Your task to perform on an android device: check out phone information Image 0: 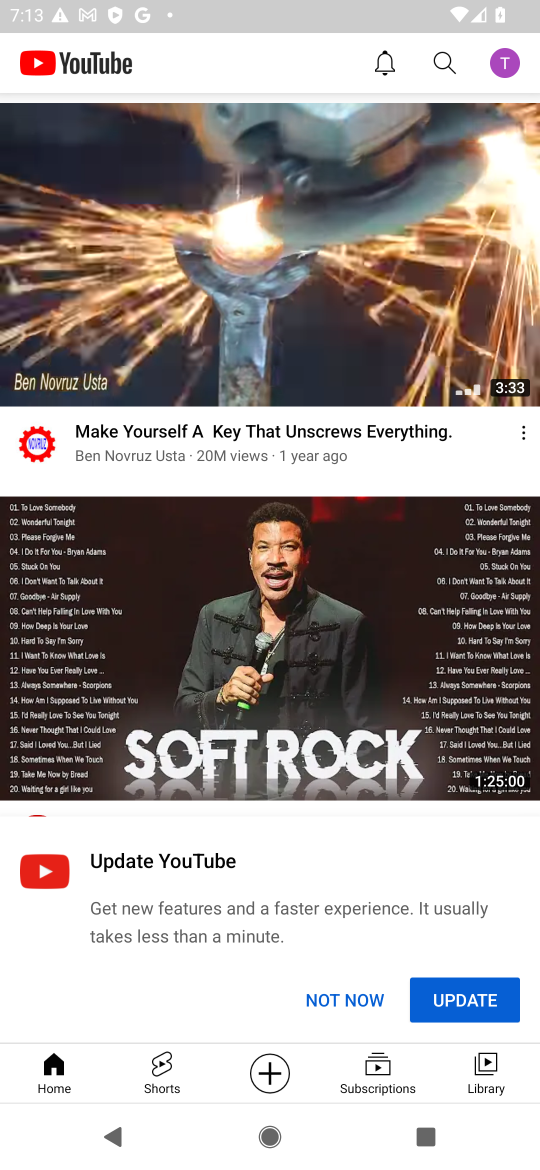
Step 0: press home button
Your task to perform on an android device: check out phone information Image 1: 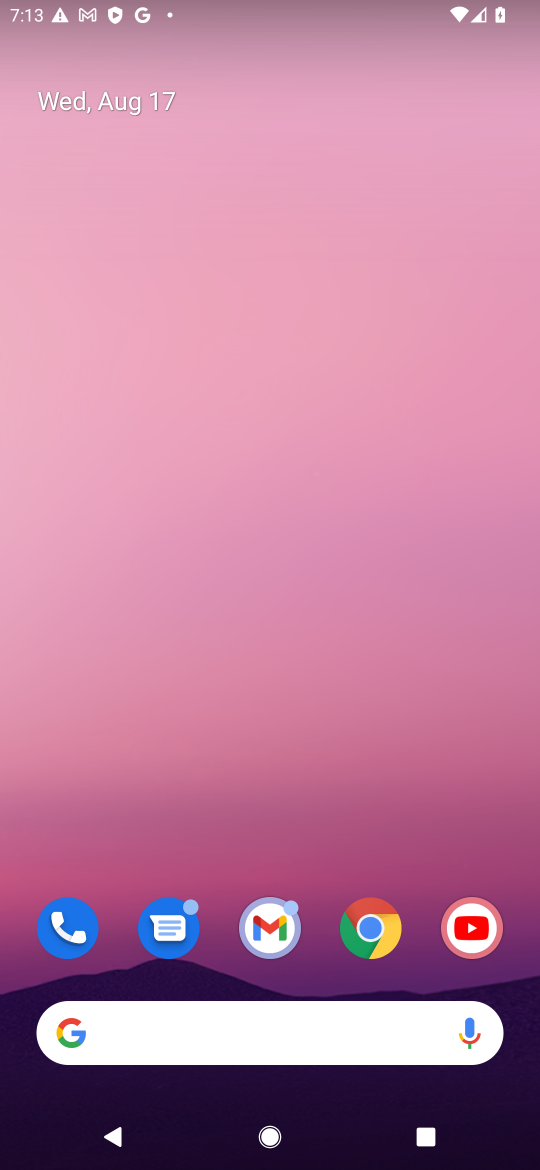
Step 1: drag from (349, 1023) to (310, 8)
Your task to perform on an android device: check out phone information Image 2: 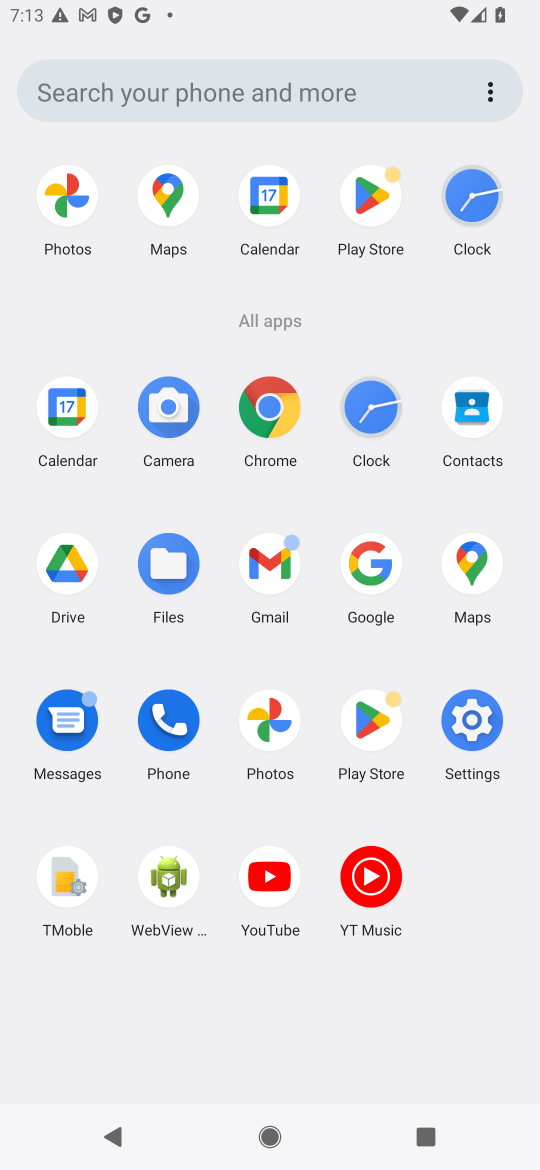
Step 2: click (475, 729)
Your task to perform on an android device: check out phone information Image 3: 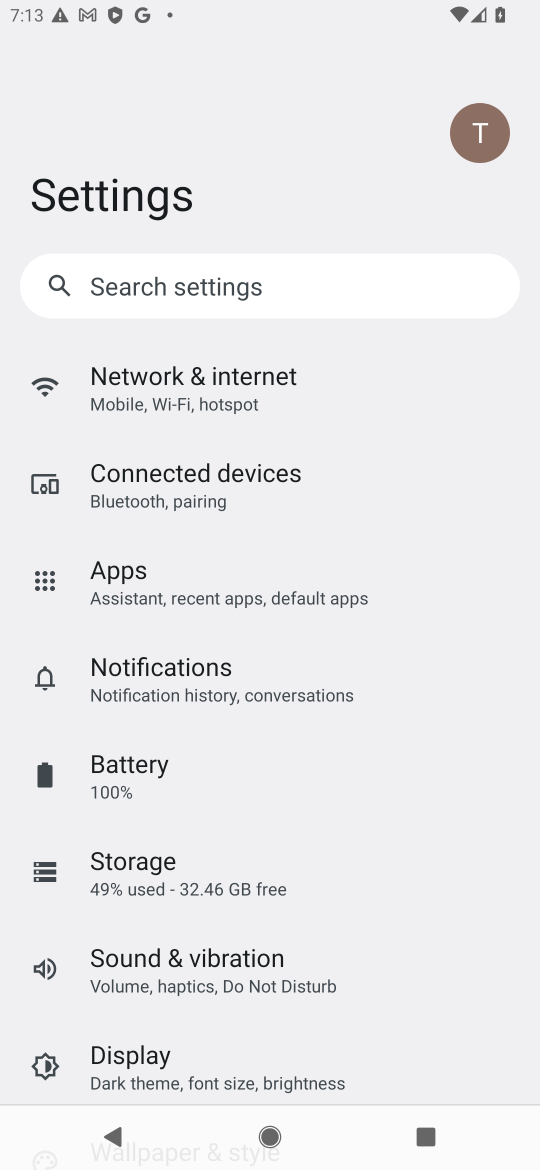
Step 3: drag from (337, 930) to (317, 213)
Your task to perform on an android device: check out phone information Image 4: 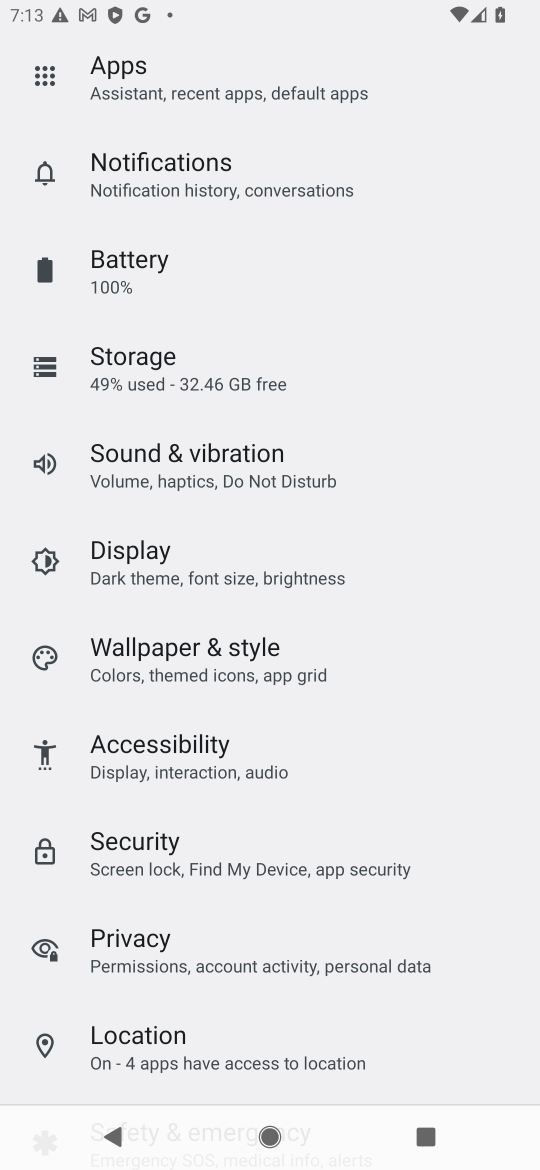
Step 4: drag from (189, 928) to (246, 85)
Your task to perform on an android device: check out phone information Image 5: 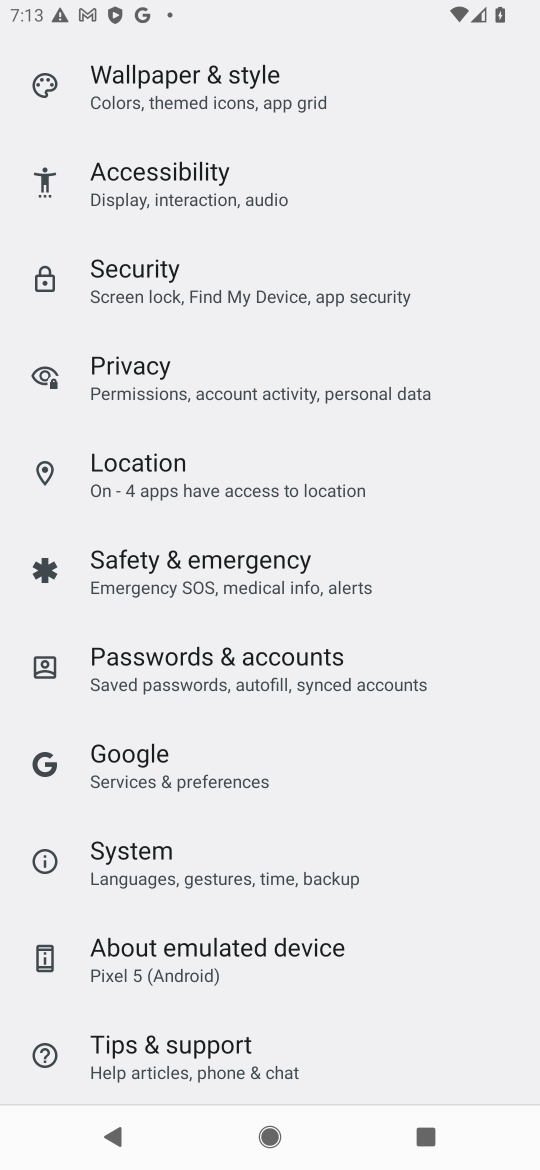
Step 5: drag from (243, 1104) to (327, 145)
Your task to perform on an android device: check out phone information Image 6: 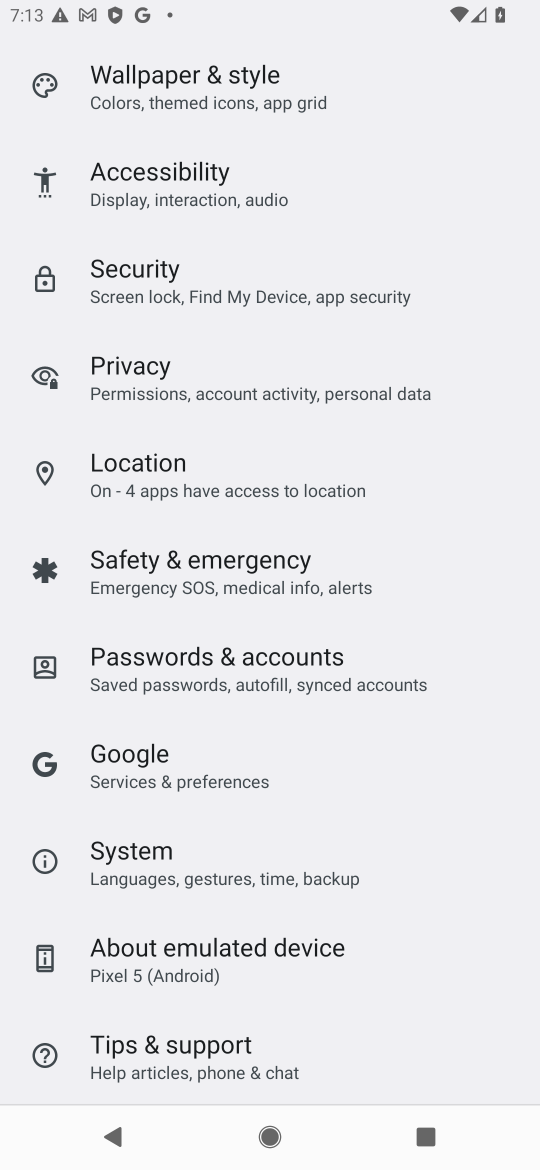
Step 6: click (269, 964)
Your task to perform on an android device: check out phone information Image 7: 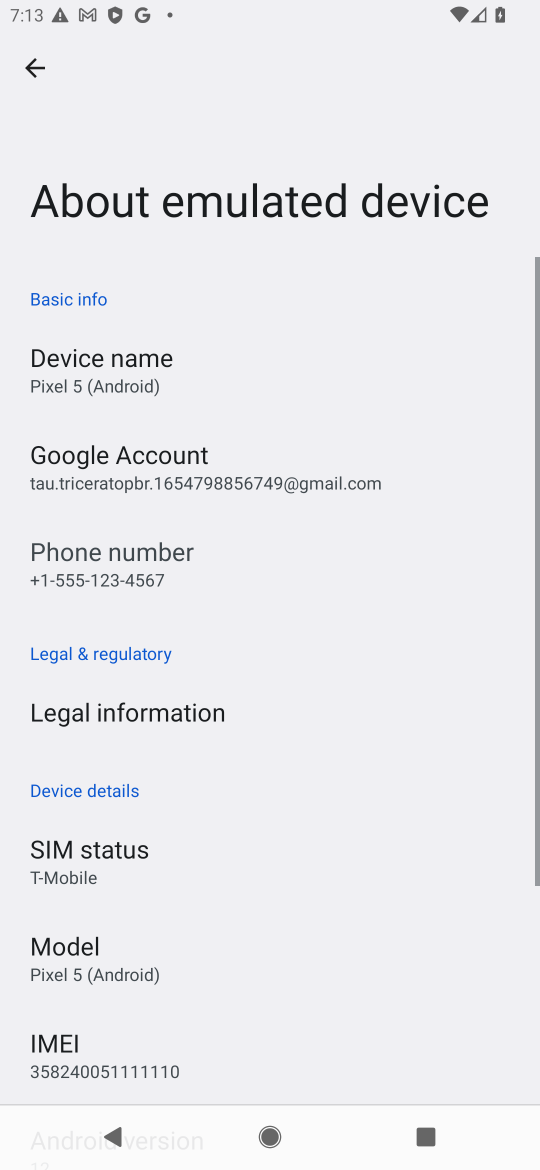
Step 7: task complete